Your task to perform on an android device: Open calendar and show me the third week of next month Image 0: 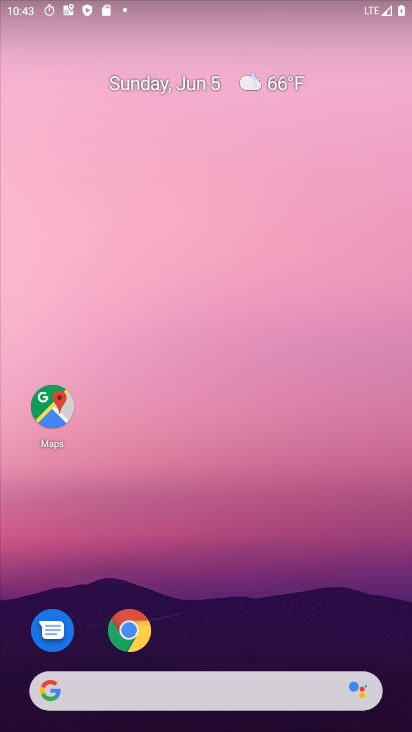
Step 0: drag from (211, 678) to (249, 32)
Your task to perform on an android device: Open calendar and show me the third week of next month Image 1: 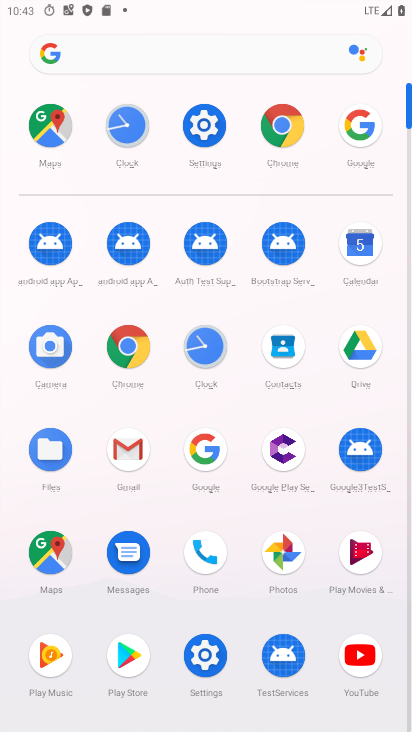
Step 1: click (360, 240)
Your task to perform on an android device: Open calendar and show me the third week of next month Image 2: 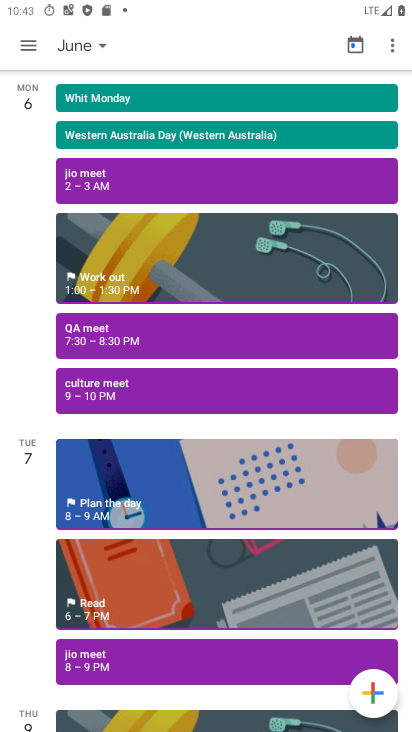
Step 2: click (94, 41)
Your task to perform on an android device: Open calendar and show me the third week of next month Image 3: 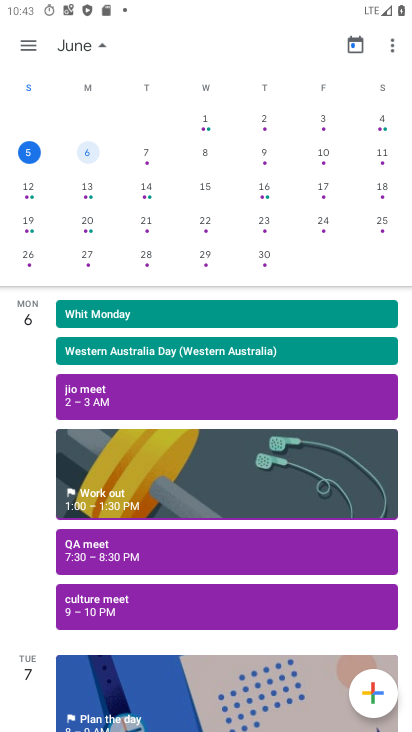
Step 3: drag from (364, 230) to (3, 171)
Your task to perform on an android device: Open calendar and show me the third week of next month Image 4: 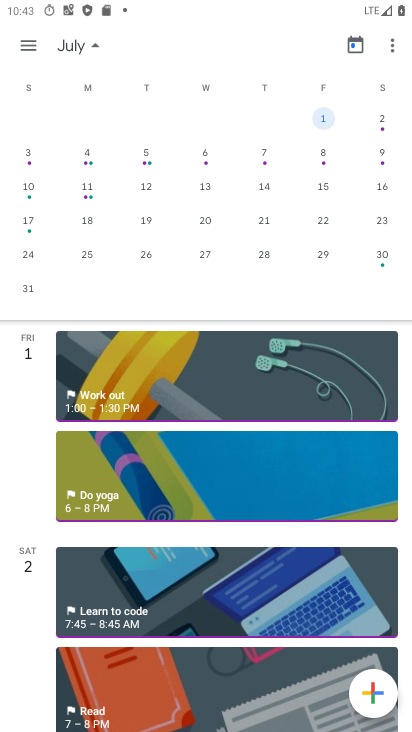
Step 4: click (91, 217)
Your task to perform on an android device: Open calendar and show me the third week of next month Image 5: 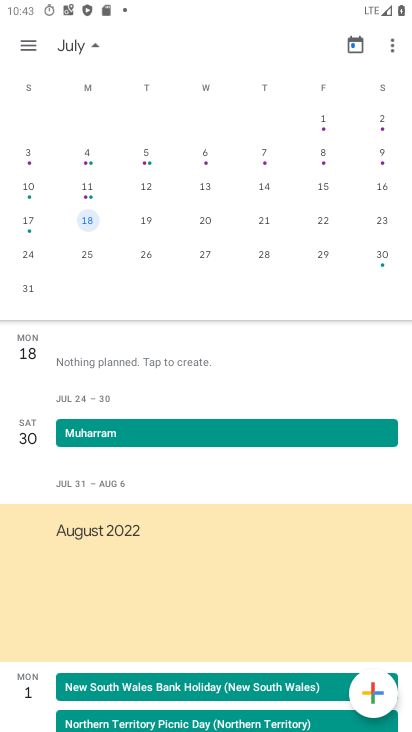
Step 5: click (26, 38)
Your task to perform on an android device: Open calendar and show me the third week of next month Image 6: 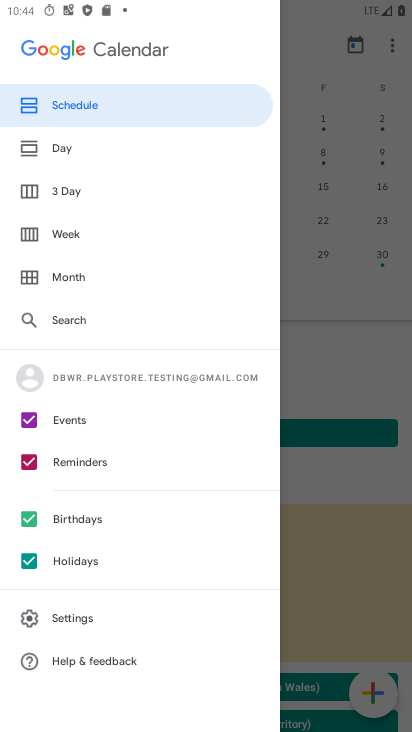
Step 6: click (71, 230)
Your task to perform on an android device: Open calendar and show me the third week of next month Image 7: 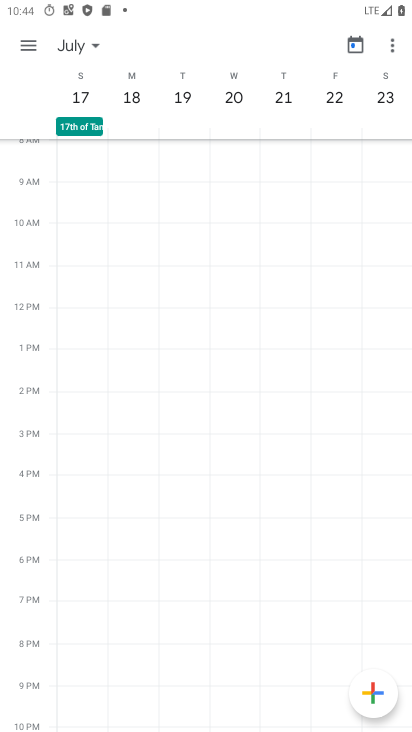
Step 7: task complete